Your task to perform on an android device: stop showing notifications on the lock screen Image 0: 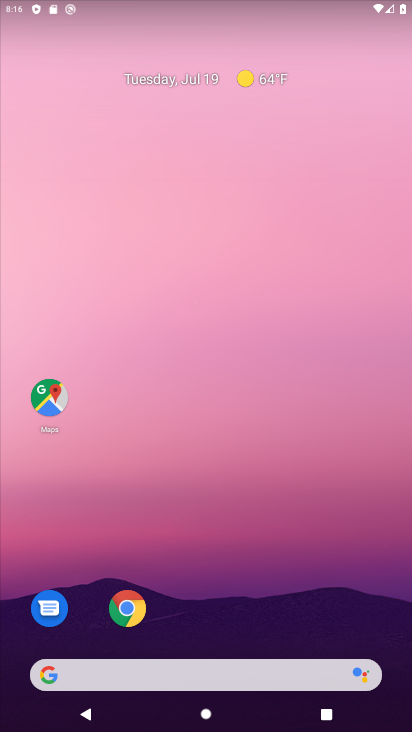
Step 0: drag from (268, 660) to (325, 215)
Your task to perform on an android device: stop showing notifications on the lock screen Image 1: 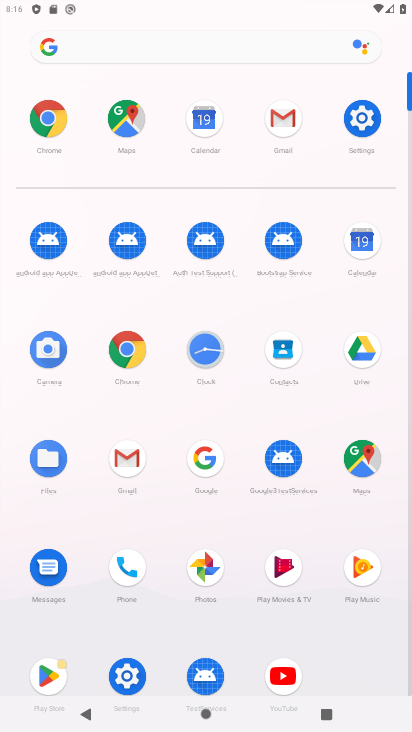
Step 1: click (355, 125)
Your task to perform on an android device: stop showing notifications on the lock screen Image 2: 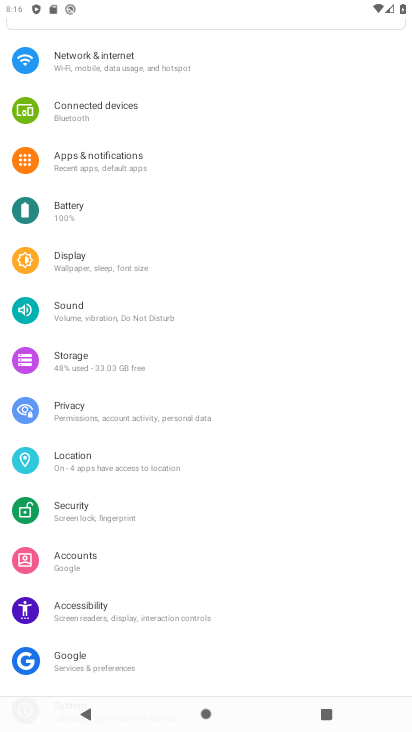
Step 2: click (148, 172)
Your task to perform on an android device: stop showing notifications on the lock screen Image 3: 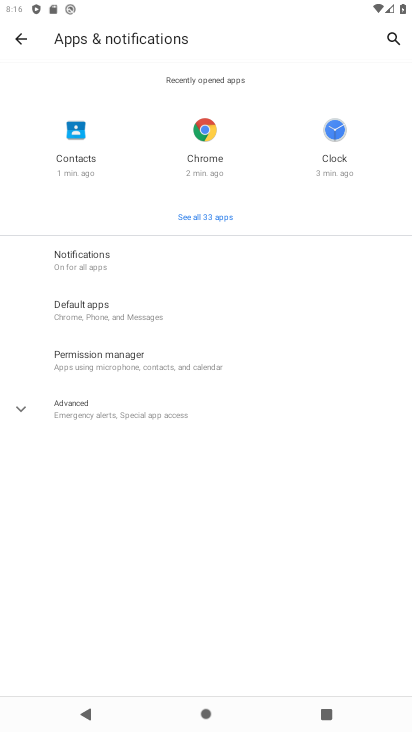
Step 3: click (125, 253)
Your task to perform on an android device: stop showing notifications on the lock screen Image 4: 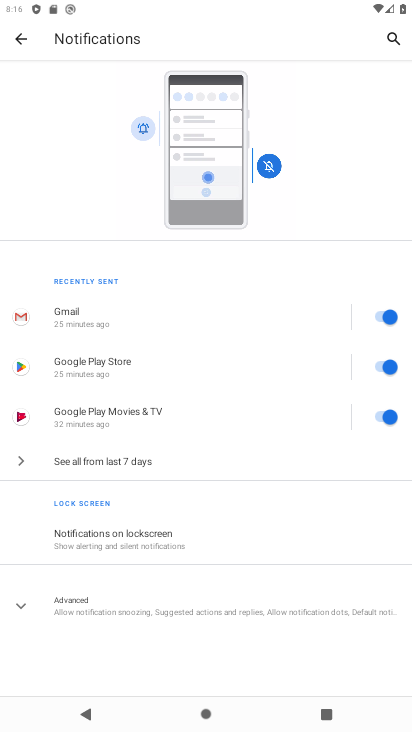
Step 4: click (171, 531)
Your task to perform on an android device: stop showing notifications on the lock screen Image 5: 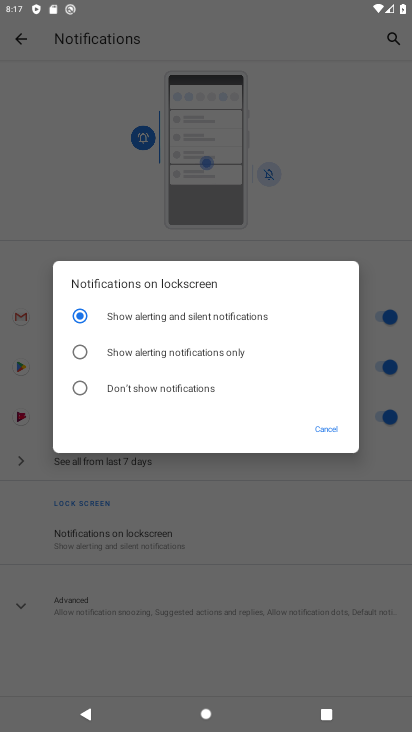
Step 5: click (127, 393)
Your task to perform on an android device: stop showing notifications on the lock screen Image 6: 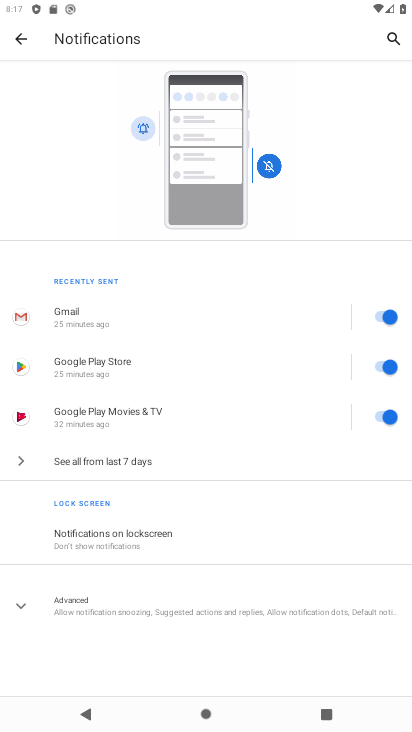
Step 6: task complete